Your task to perform on an android device: Open the phone app and click the voicemail tab. Image 0: 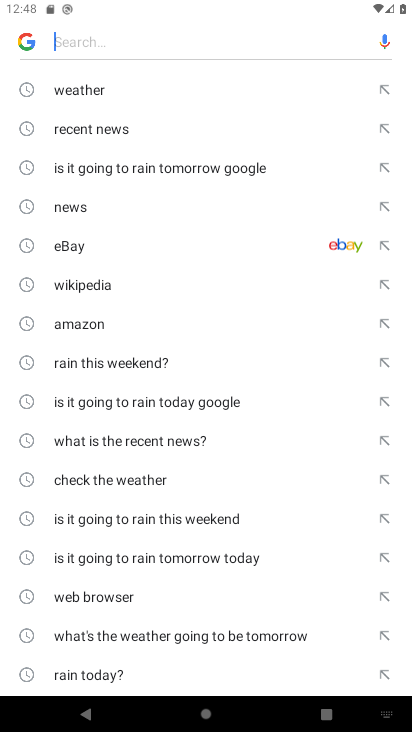
Step 0: press home button
Your task to perform on an android device: Open the phone app and click the voicemail tab. Image 1: 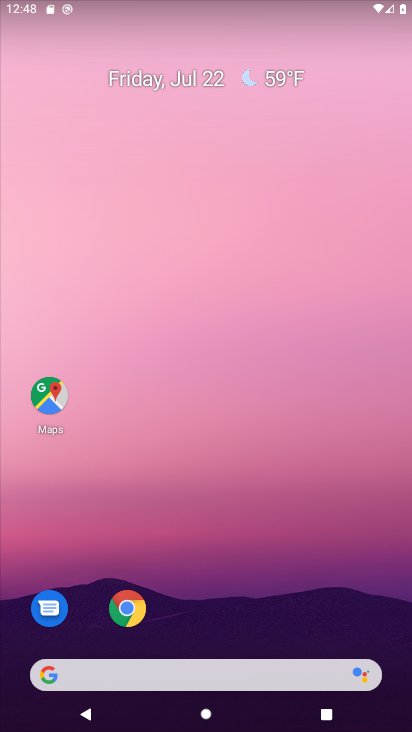
Step 1: drag from (216, 620) to (247, 1)
Your task to perform on an android device: Open the phone app and click the voicemail tab. Image 2: 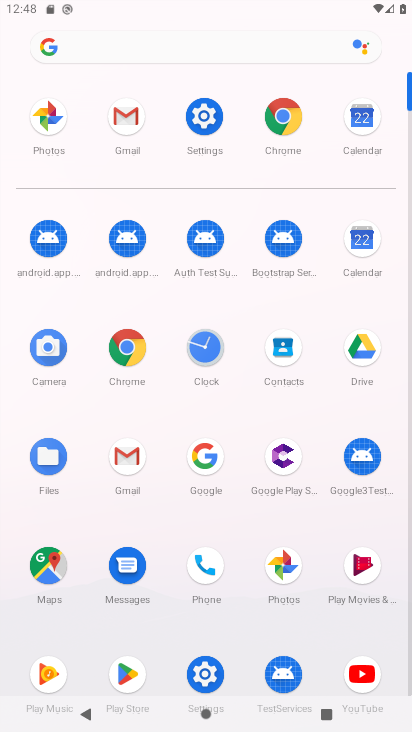
Step 2: click (211, 570)
Your task to perform on an android device: Open the phone app and click the voicemail tab. Image 3: 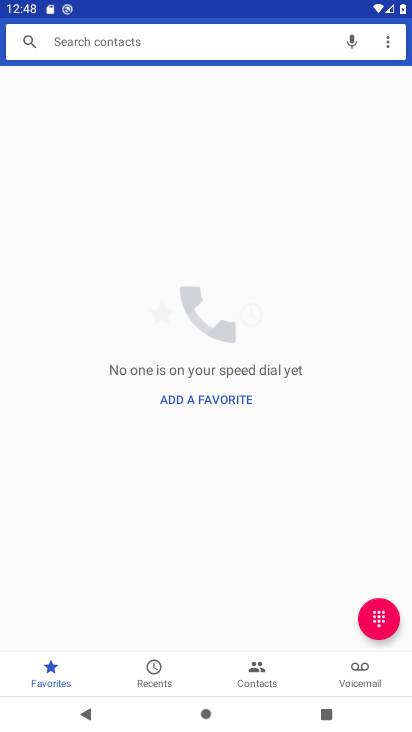
Step 3: click (347, 674)
Your task to perform on an android device: Open the phone app and click the voicemail tab. Image 4: 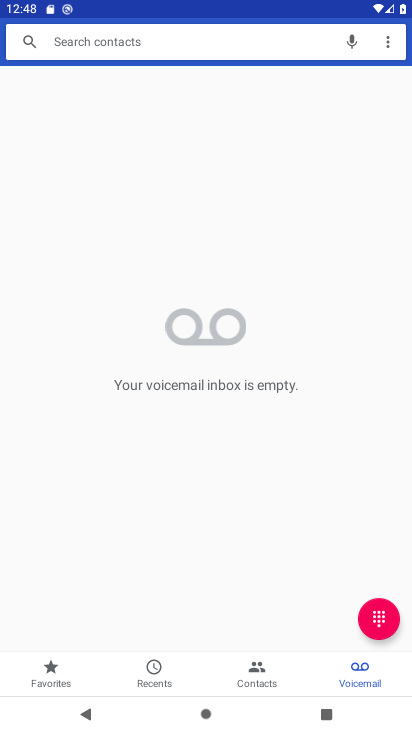
Step 4: task complete